Your task to perform on an android device: Add "apple airpods pro" to the cart on bestbuy.com Image 0: 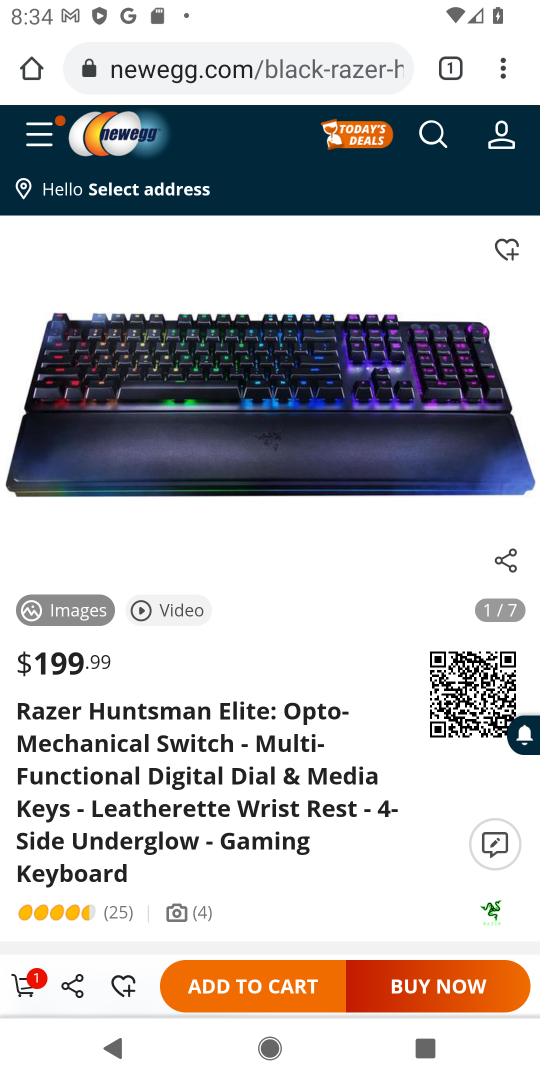
Step 0: press home button
Your task to perform on an android device: Add "apple airpods pro" to the cart on bestbuy.com Image 1: 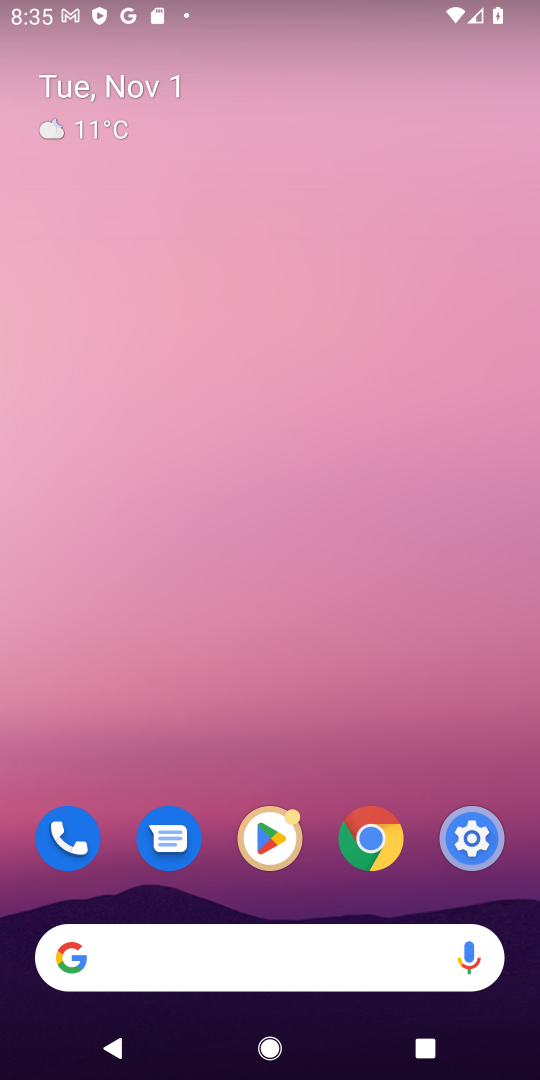
Step 1: press home button
Your task to perform on an android device: Add "apple airpods pro" to the cart on bestbuy.com Image 2: 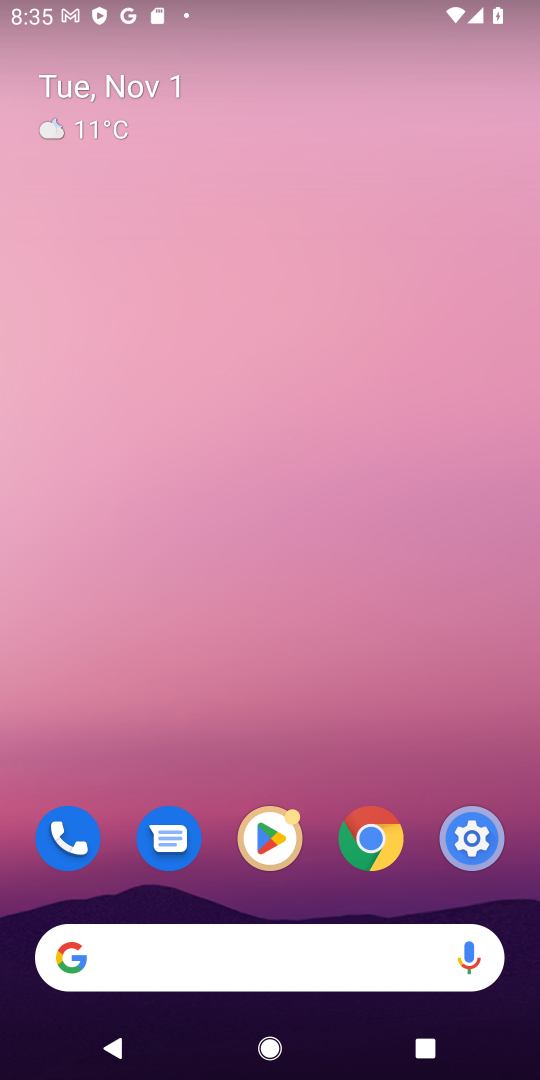
Step 2: click (100, 947)
Your task to perform on an android device: Add "apple airpods pro" to the cart on bestbuy.com Image 3: 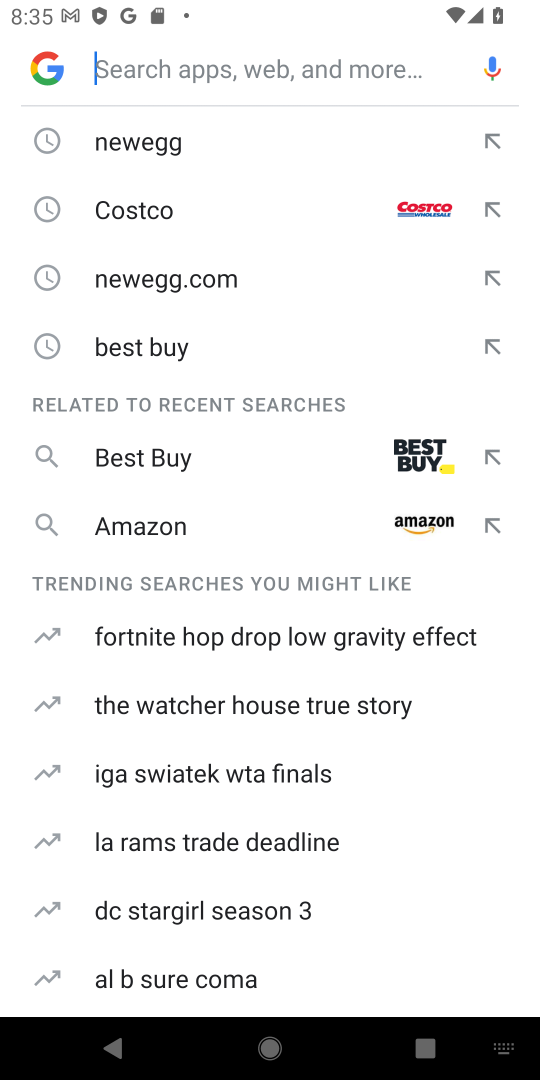
Step 3: type "bestbuy.com"
Your task to perform on an android device: Add "apple airpods pro" to the cart on bestbuy.com Image 4: 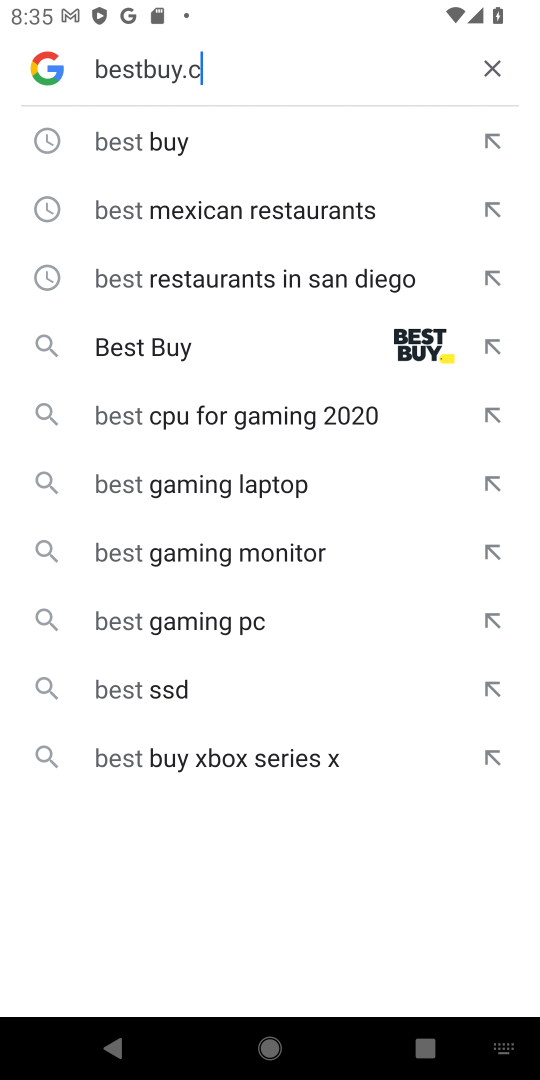
Step 4: press enter
Your task to perform on an android device: Add "apple airpods pro" to the cart on bestbuy.com Image 5: 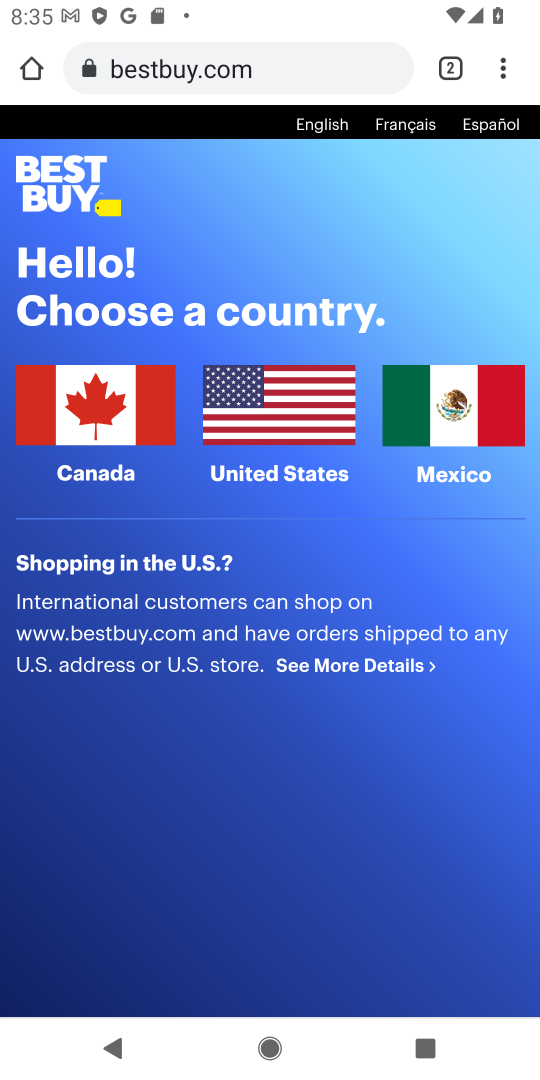
Step 5: click (101, 423)
Your task to perform on an android device: Add "apple airpods pro" to the cart on bestbuy.com Image 6: 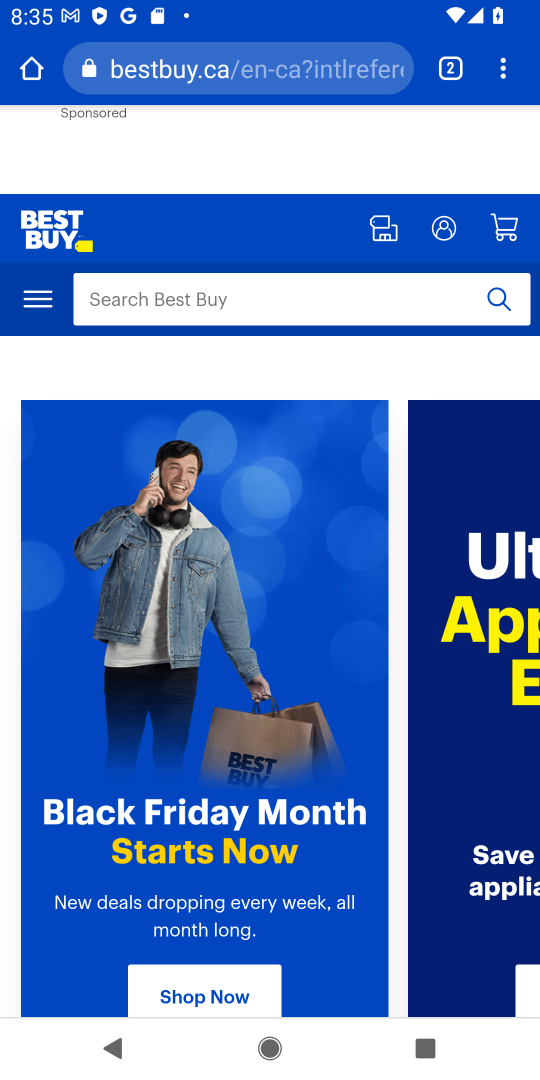
Step 6: click (121, 303)
Your task to perform on an android device: Add "apple airpods pro" to the cart on bestbuy.com Image 7: 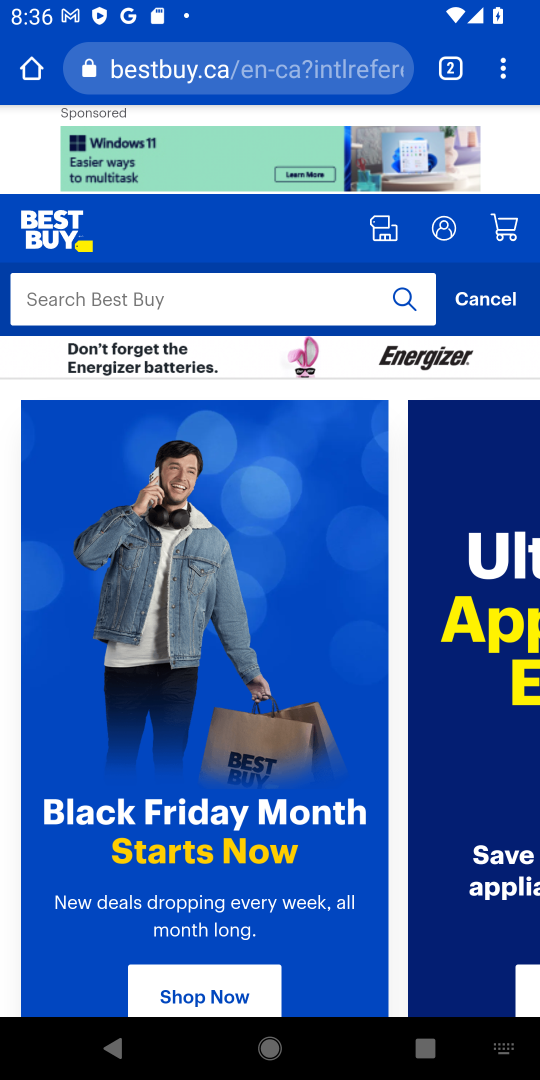
Step 7: press enter
Your task to perform on an android device: Add "apple airpods pro" to the cart on bestbuy.com Image 8: 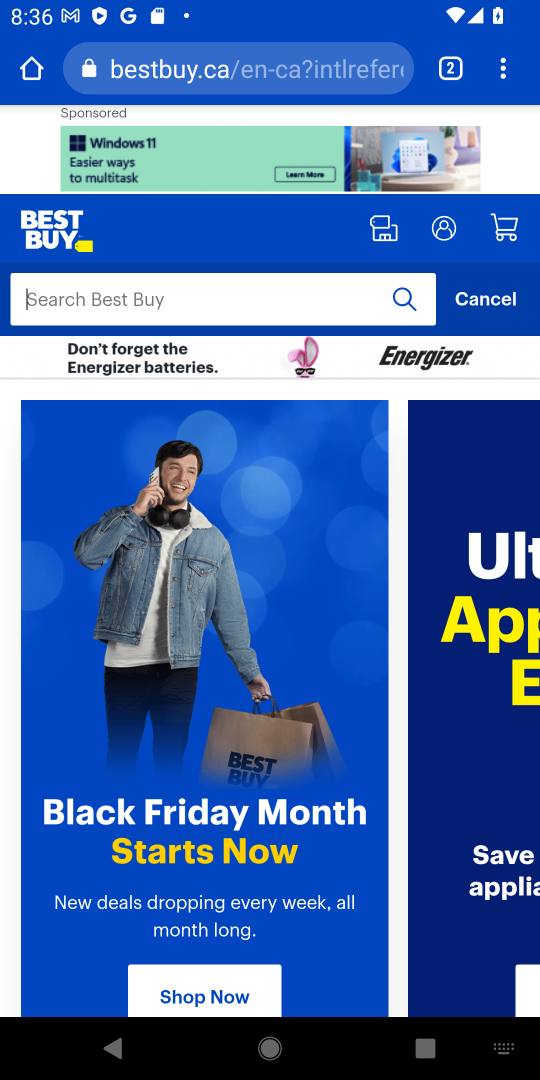
Step 8: type "apple airpods pro"
Your task to perform on an android device: Add "apple airpods pro" to the cart on bestbuy.com Image 9: 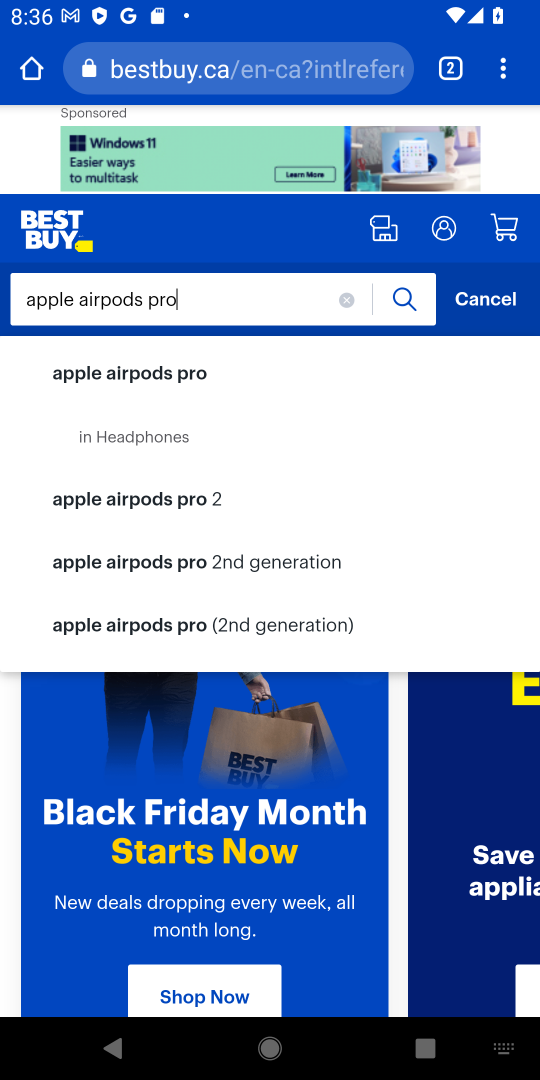
Step 9: click (401, 291)
Your task to perform on an android device: Add "apple airpods pro" to the cart on bestbuy.com Image 10: 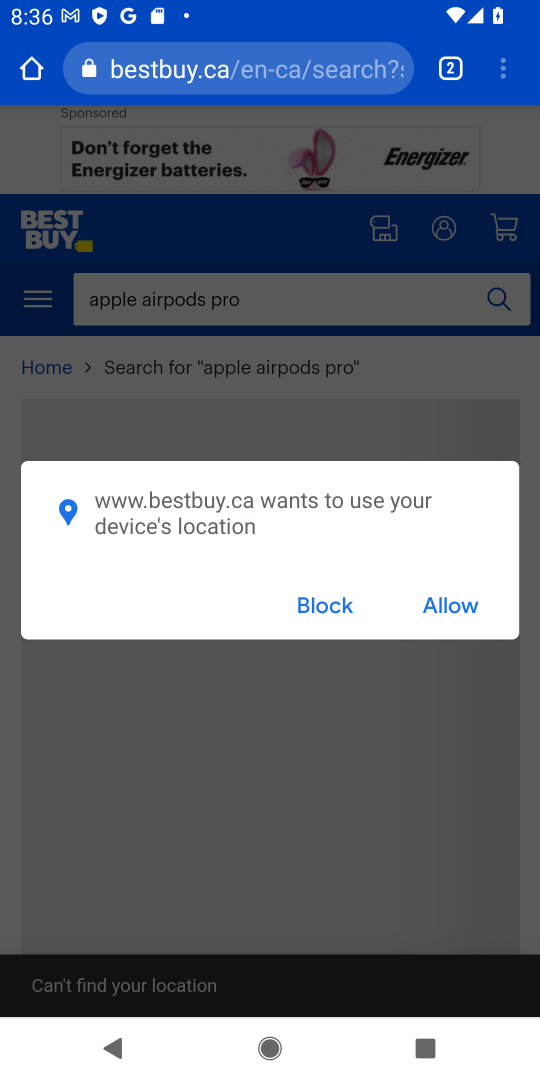
Step 10: click (324, 604)
Your task to perform on an android device: Add "apple airpods pro" to the cart on bestbuy.com Image 11: 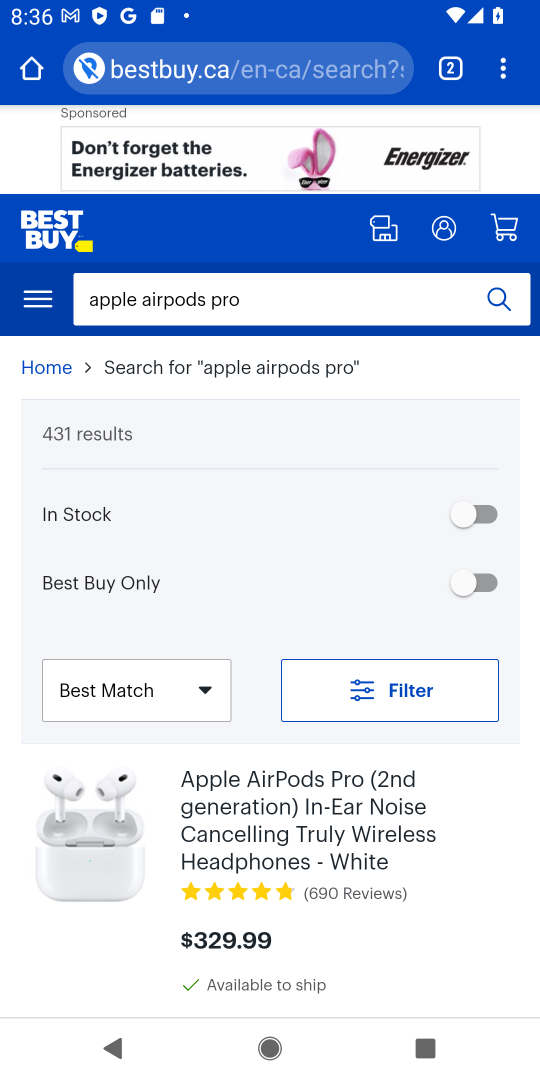
Step 11: drag from (324, 777) to (310, 403)
Your task to perform on an android device: Add "apple airpods pro" to the cart on bestbuy.com Image 12: 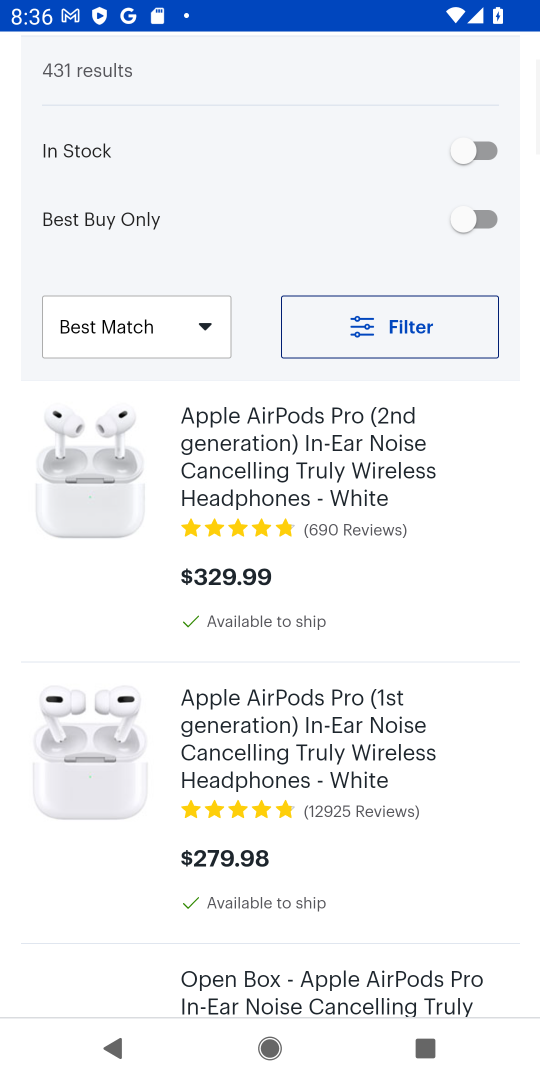
Step 12: click (265, 445)
Your task to perform on an android device: Add "apple airpods pro" to the cart on bestbuy.com Image 13: 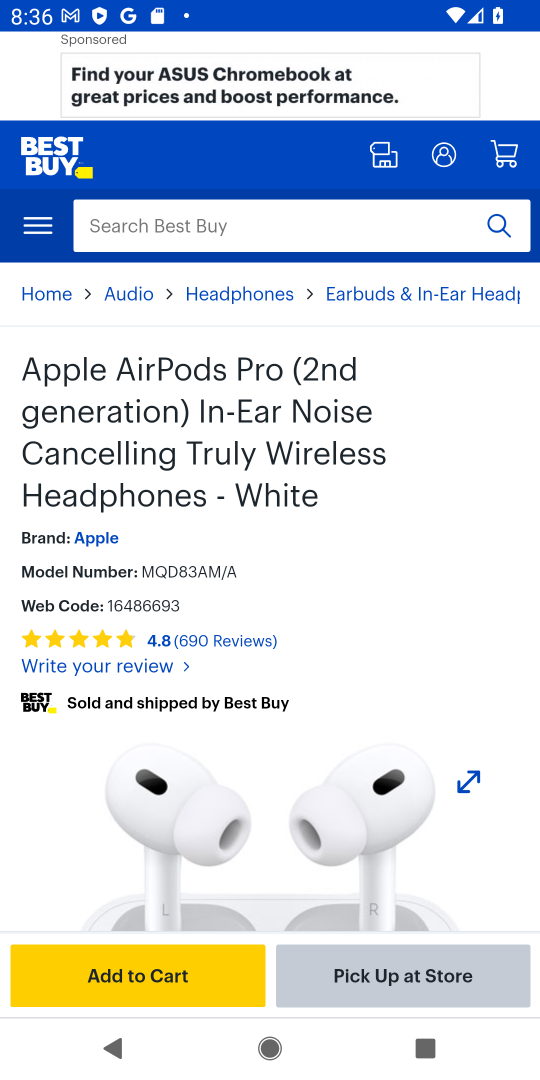
Step 13: click (140, 973)
Your task to perform on an android device: Add "apple airpods pro" to the cart on bestbuy.com Image 14: 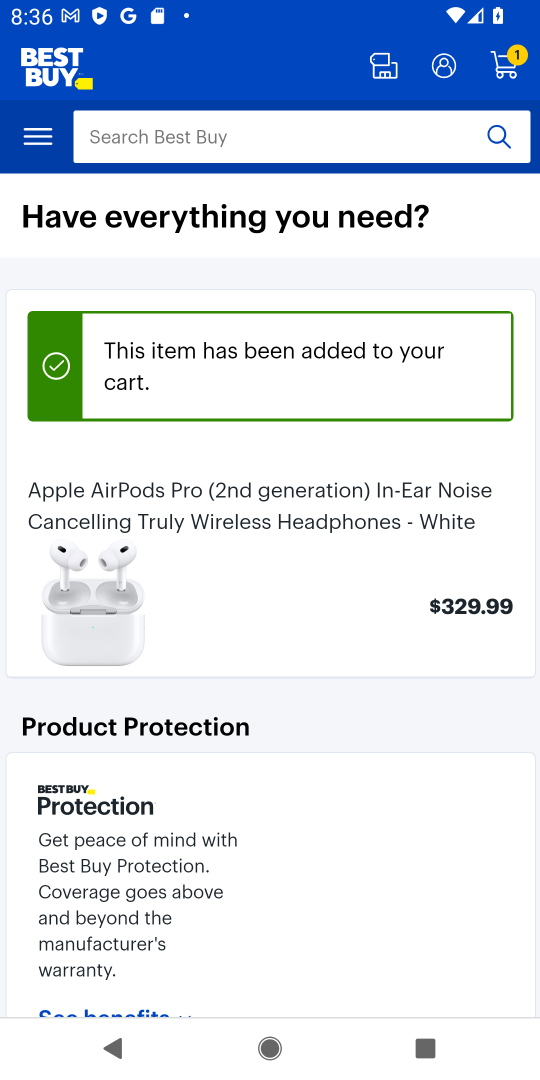
Step 14: task complete